Your task to perform on an android device: Open Chrome and go to settings Image 0: 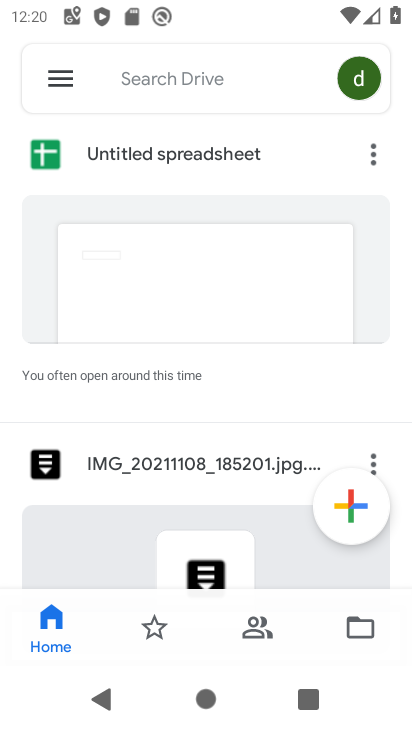
Step 0: press home button
Your task to perform on an android device: Open Chrome and go to settings Image 1: 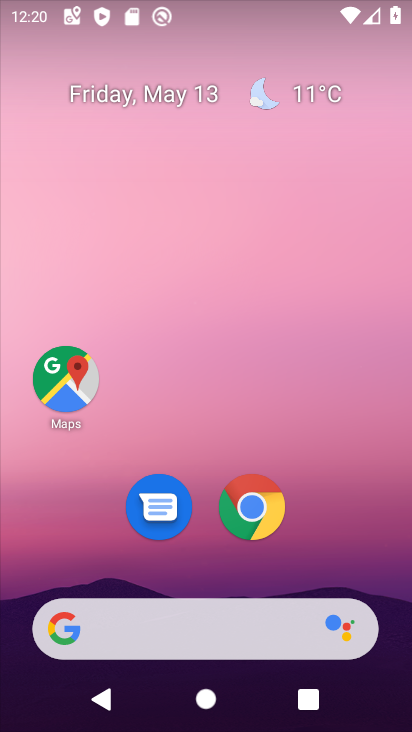
Step 1: click (263, 515)
Your task to perform on an android device: Open Chrome and go to settings Image 2: 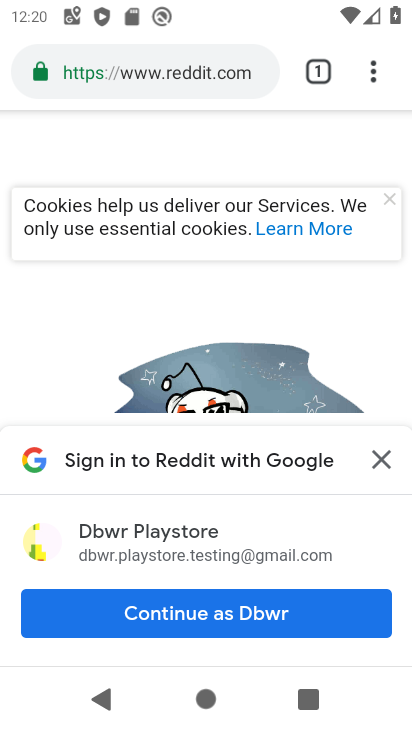
Step 2: click (381, 56)
Your task to perform on an android device: Open Chrome and go to settings Image 3: 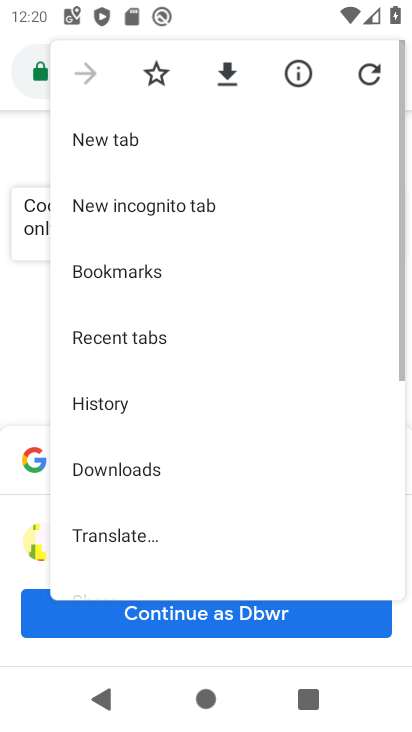
Step 3: drag from (230, 457) to (218, 32)
Your task to perform on an android device: Open Chrome and go to settings Image 4: 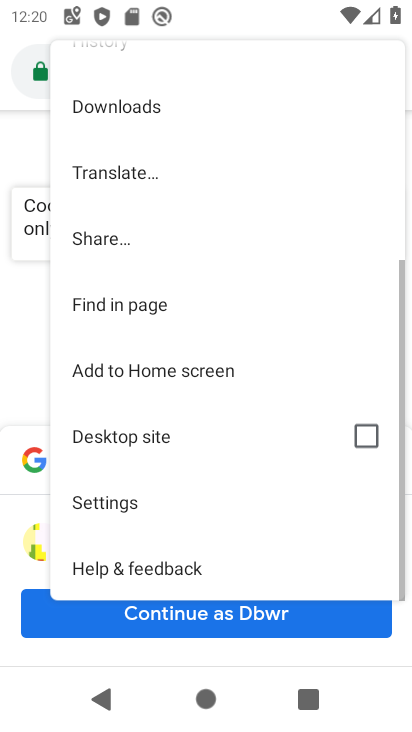
Step 4: click (105, 505)
Your task to perform on an android device: Open Chrome and go to settings Image 5: 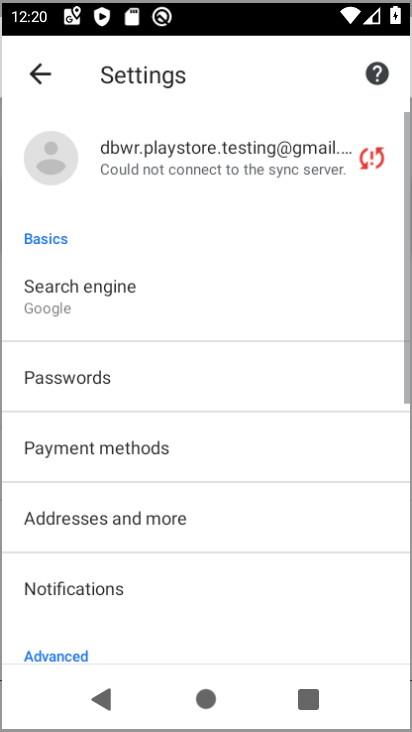
Step 5: task complete